Your task to perform on an android device: Turn on the flashlight Image 0: 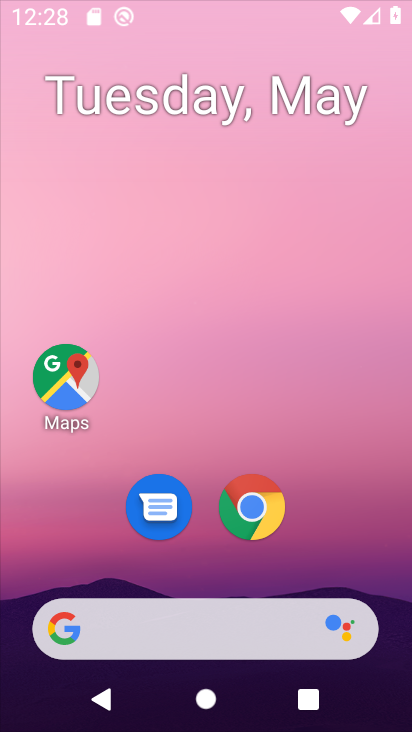
Step 0: click (40, 68)
Your task to perform on an android device: Turn on the flashlight Image 1: 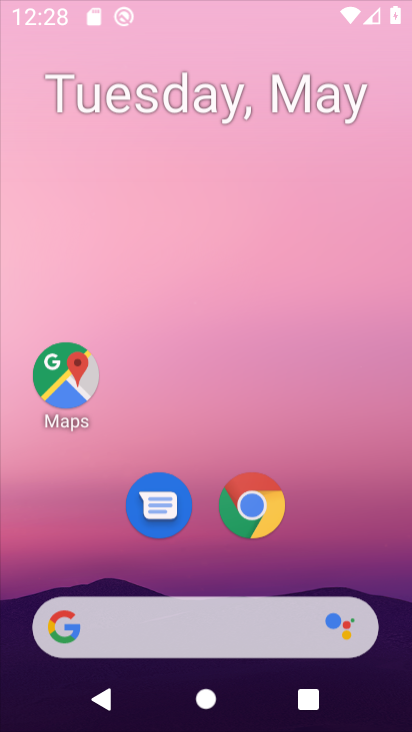
Step 1: press back button
Your task to perform on an android device: Turn on the flashlight Image 2: 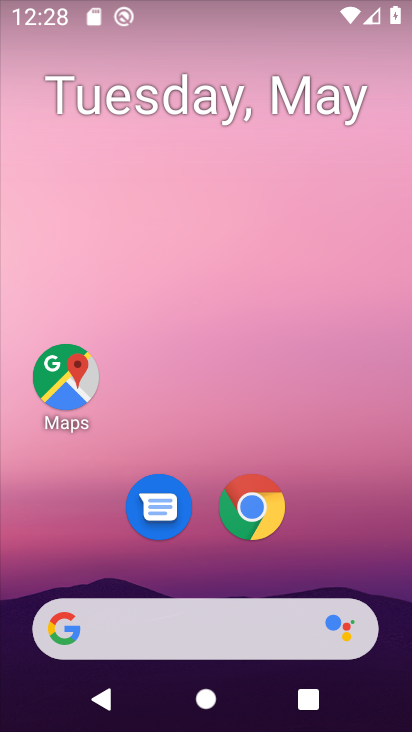
Step 2: drag from (251, 723) to (111, 32)
Your task to perform on an android device: Turn on the flashlight Image 3: 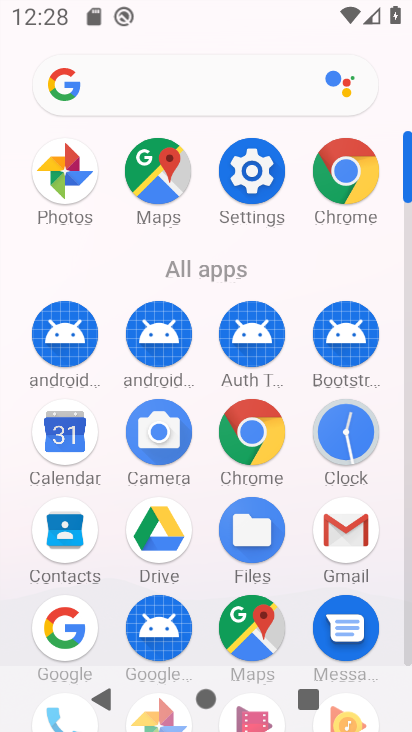
Step 3: drag from (225, 668) to (108, 28)
Your task to perform on an android device: Turn on the flashlight Image 4: 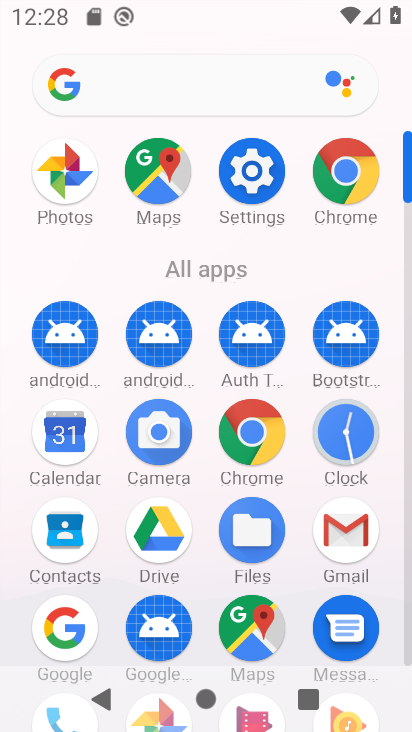
Step 4: drag from (118, 62) to (120, 19)
Your task to perform on an android device: Turn on the flashlight Image 5: 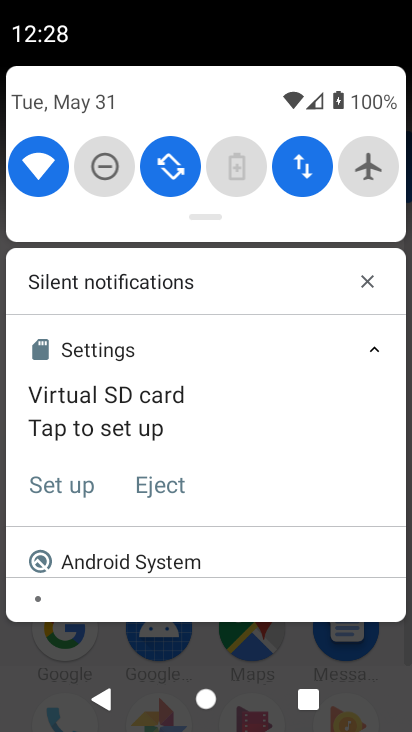
Step 5: click (264, 661)
Your task to perform on an android device: Turn on the flashlight Image 6: 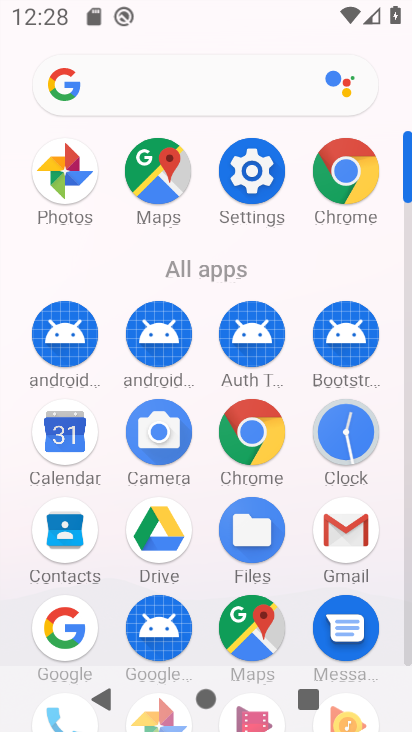
Step 6: task complete